Your task to perform on an android device: Open Yahoo.com Image 0: 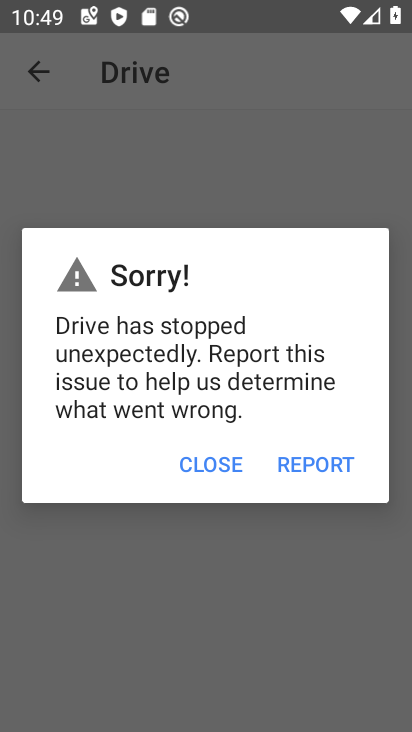
Step 0: press home button
Your task to perform on an android device: Open Yahoo.com Image 1: 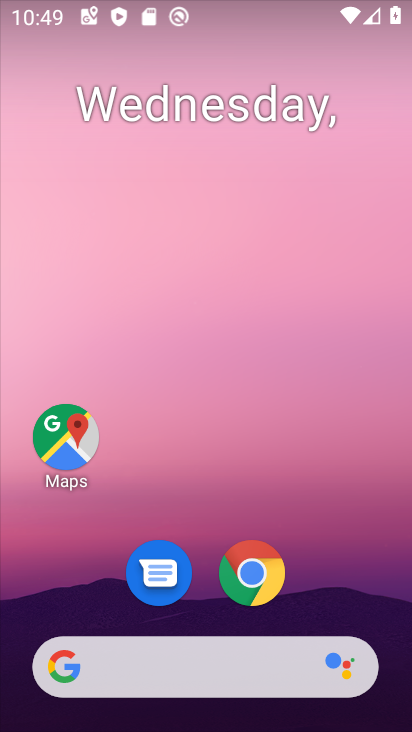
Step 1: click (254, 575)
Your task to perform on an android device: Open Yahoo.com Image 2: 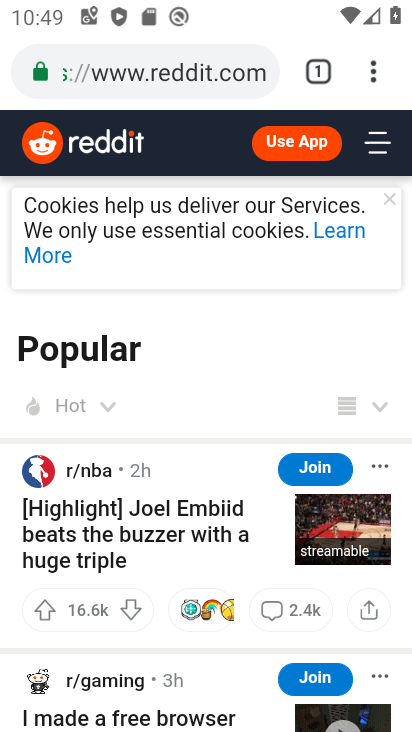
Step 2: click (255, 82)
Your task to perform on an android device: Open Yahoo.com Image 3: 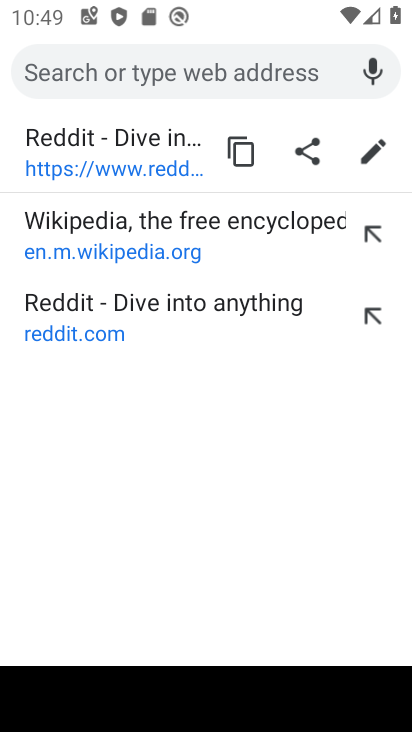
Step 3: type "Yahoo.com"
Your task to perform on an android device: Open Yahoo.com Image 4: 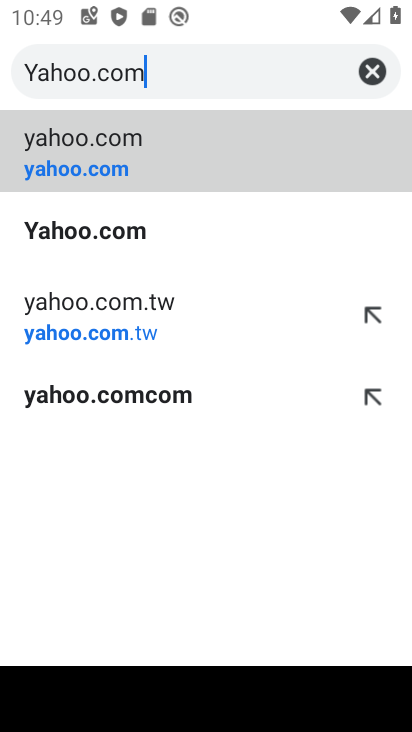
Step 4: click (154, 170)
Your task to perform on an android device: Open Yahoo.com Image 5: 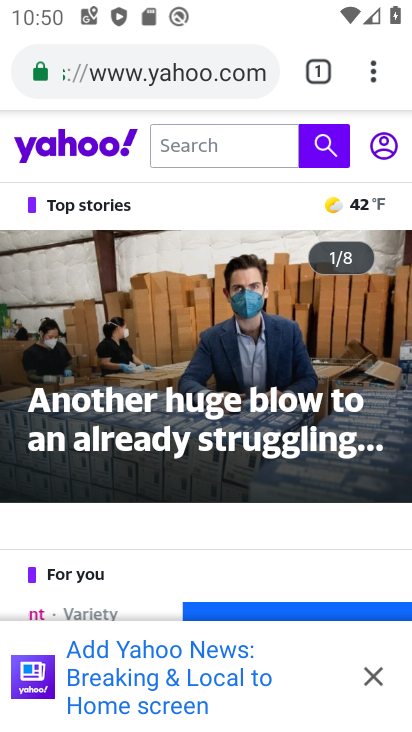
Step 5: task complete